Your task to perform on an android device: turn off notifications in google photos Image 0: 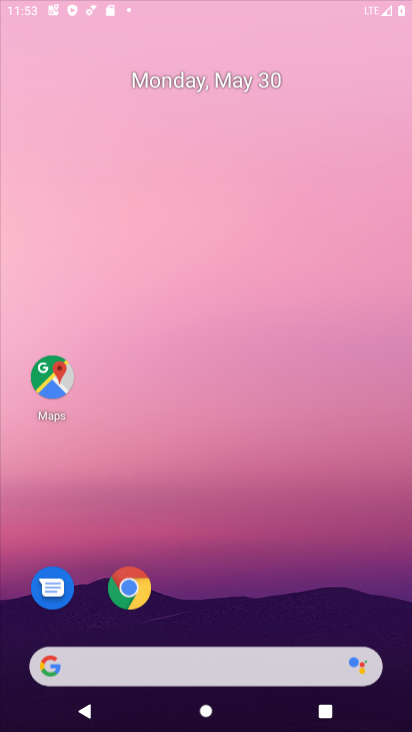
Step 0: drag from (220, 618) to (311, 40)
Your task to perform on an android device: turn off notifications in google photos Image 1: 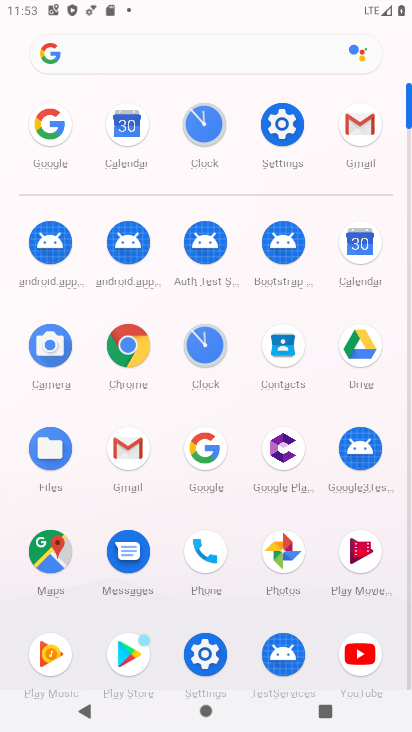
Step 1: click (273, 122)
Your task to perform on an android device: turn off notifications in google photos Image 2: 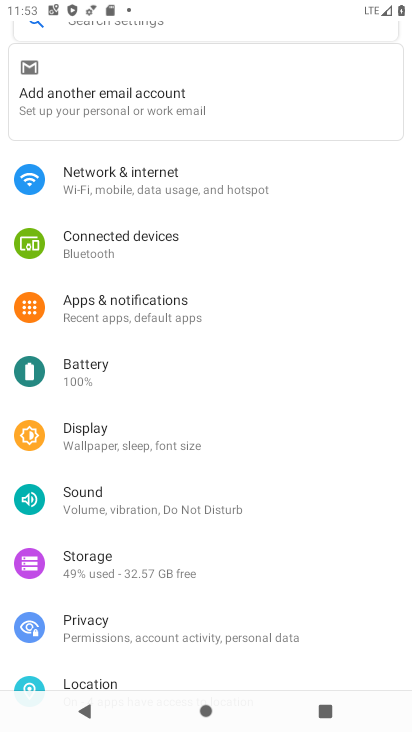
Step 2: press home button
Your task to perform on an android device: turn off notifications in google photos Image 3: 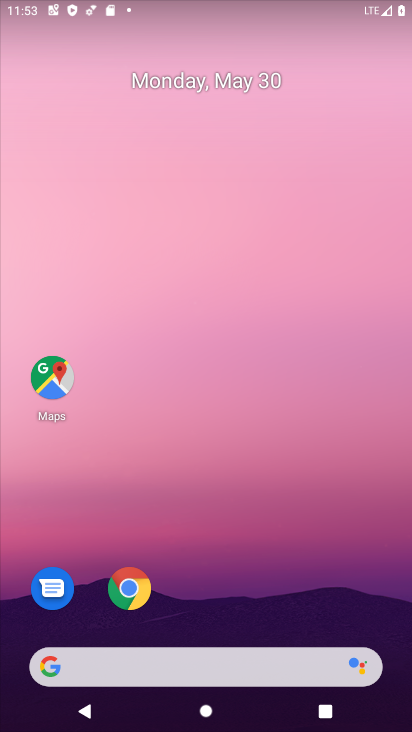
Step 3: drag from (217, 609) to (286, 49)
Your task to perform on an android device: turn off notifications in google photos Image 4: 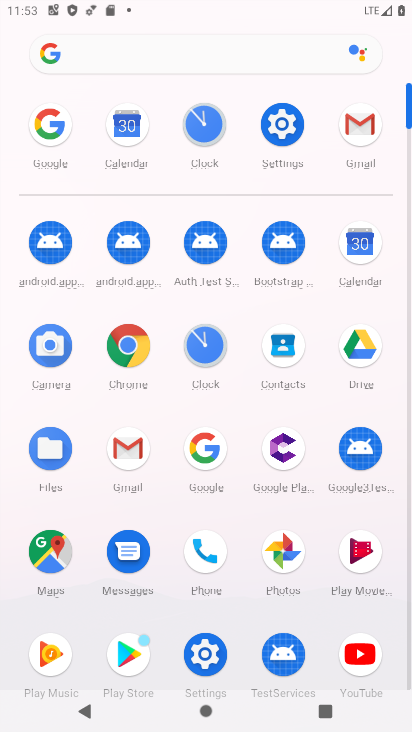
Step 4: click (278, 549)
Your task to perform on an android device: turn off notifications in google photos Image 5: 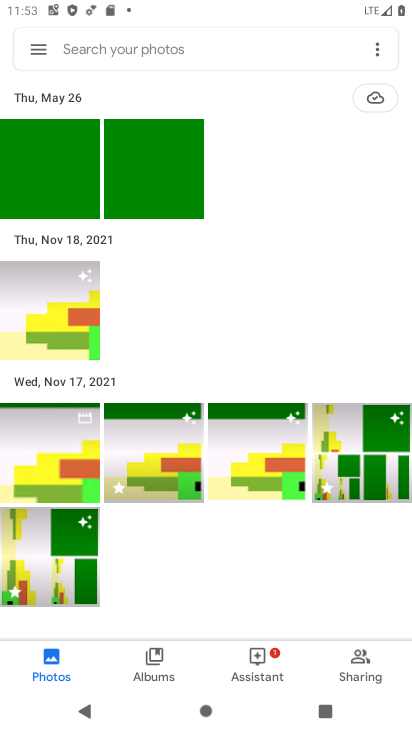
Step 5: click (29, 46)
Your task to perform on an android device: turn off notifications in google photos Image 6: 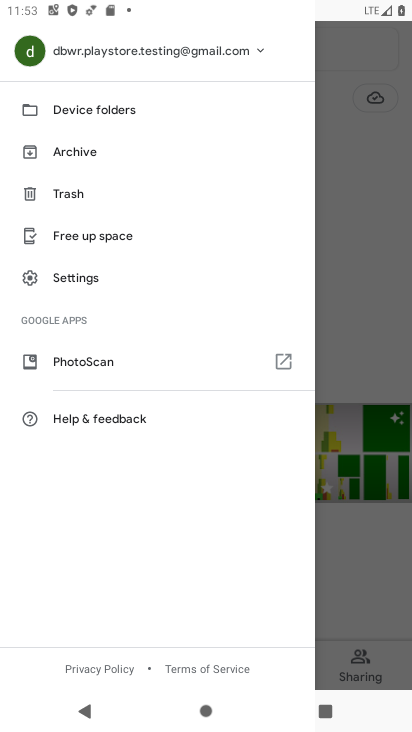
Step 6: click (98, 277)
Your task to perform on an android device: turn off notifications in google photos Image 7: 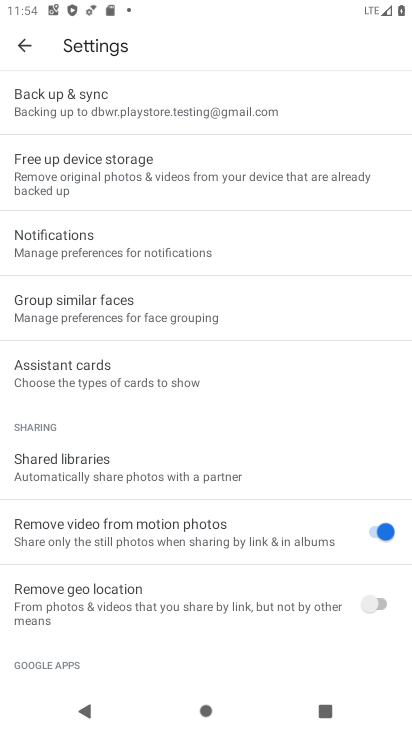
Step 7: click (94, 242)
Your task to perform on an android device: turn off notifications in google photos Image 8: 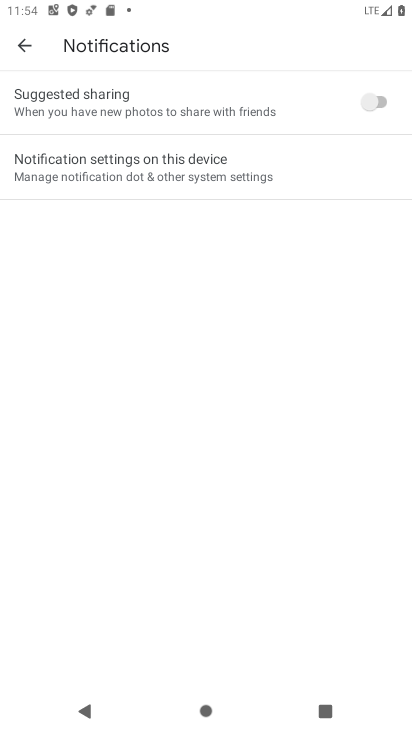
Step 8: click (168, 144)
Your task to perform on an android device: turn off notifications in google photos Image 9: 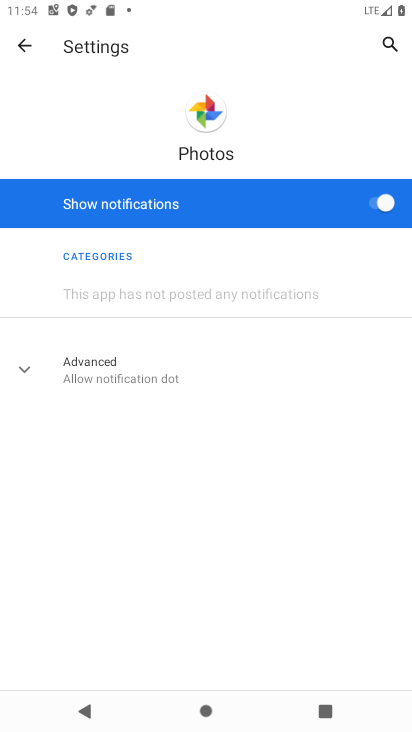
Step 9: click (366, 203)
Your task to perform on an android device: turn off notifications in google photos Image 10: 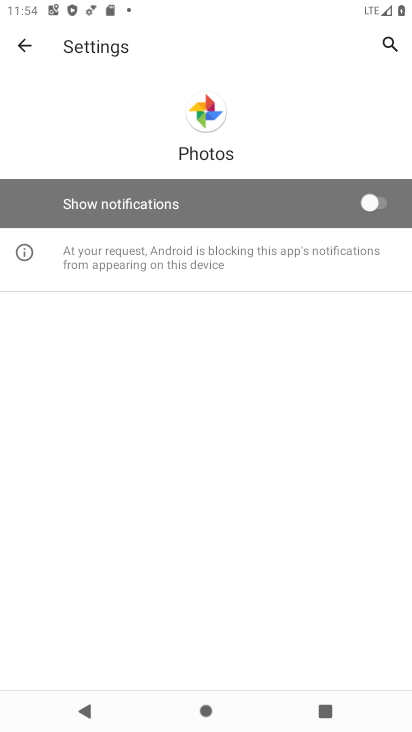
Step 10: task complete